Your task to perform on an android device: visit the assistant section in the google photos Image 0: 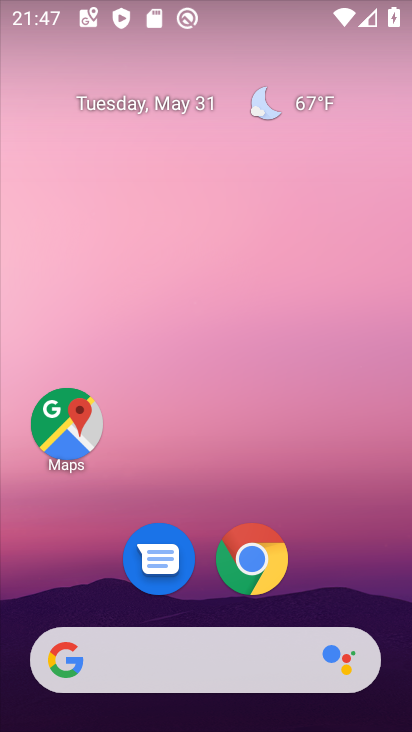
Step 0: drag from (210, 586) to (219, 77)
Your task to perform on an android device: visit the assistant section in the google photos Image 1: 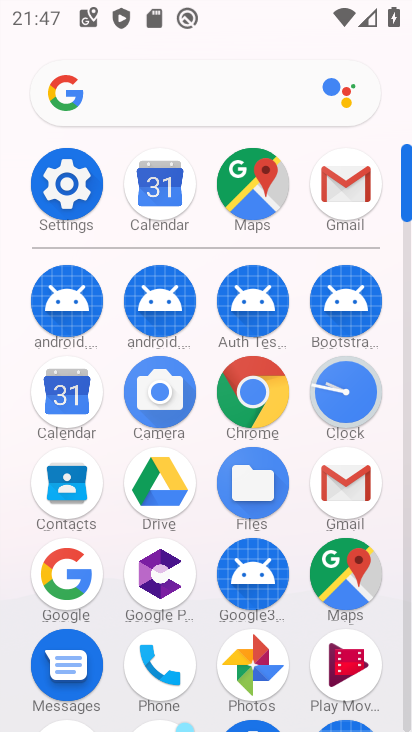
Step 1: click (252, 674)
Your task to perform on an android device: visit the assistant section in the google photos Image 2: 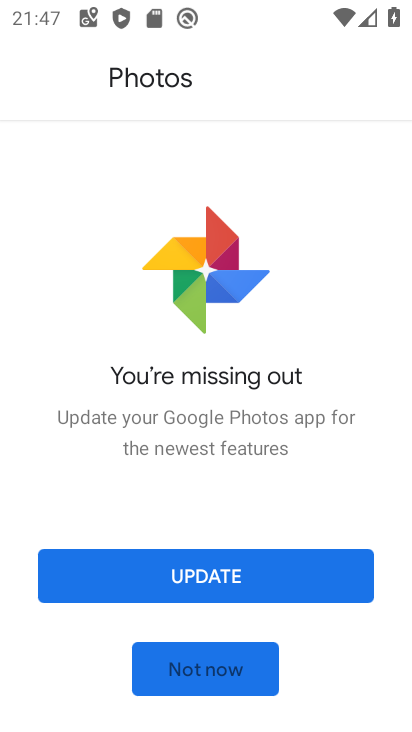
Step 2: drag from (220, 674) to (247, 403)
Your task to perform on an android device: visit the assistant section in the google photos Image 3: 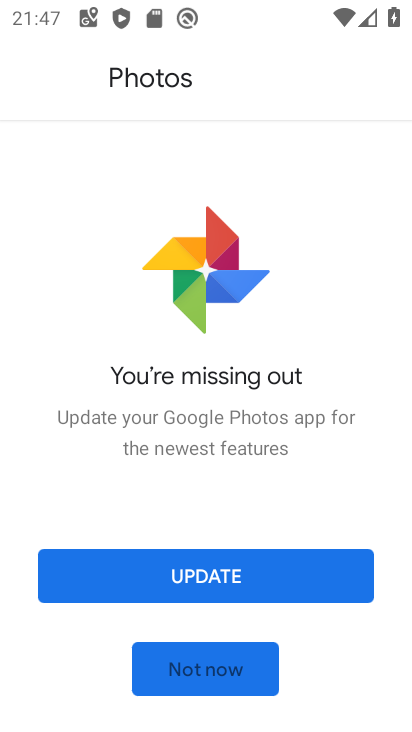
Step 3: click (224, 562)
Your task to perform on an android device: visit the assistant section in the google photos Image 4: 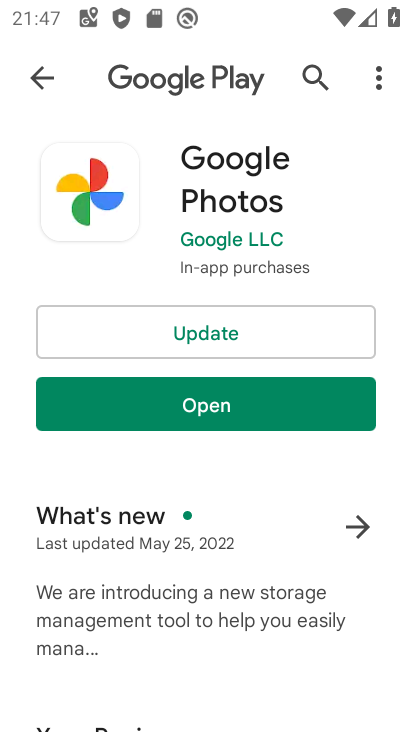
Step 4: click (199, 329)
Your task to perform on an android device: visit the assistant section in the google photos Image 5: 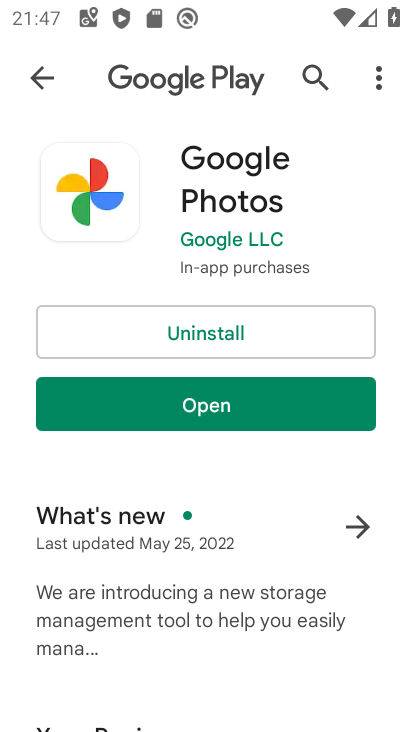
Step 5: click (224, 413)
Your task to perform on an android device: visit the assistant section in the google photos Image 6: 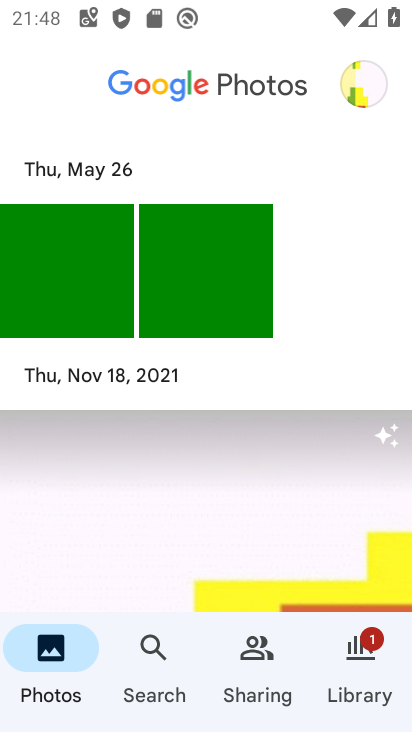
Step 6: task complete